Your task to perform on an android device: toggle notification dots Image 0: 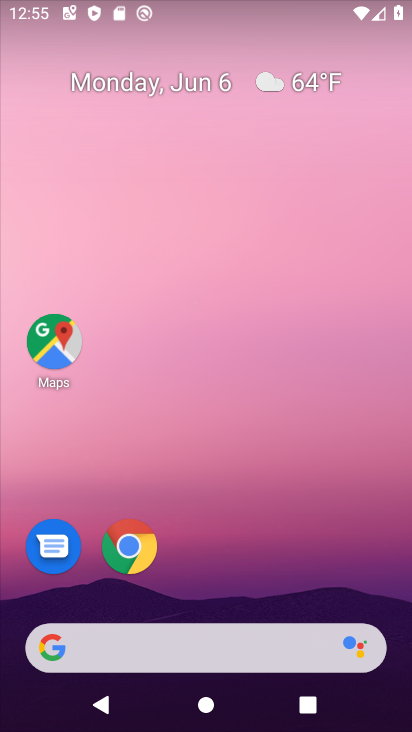
Step 0: drag from (285, 590) to (275, 260)
Your task to perform on an android device: toggle notification dots Image 1: 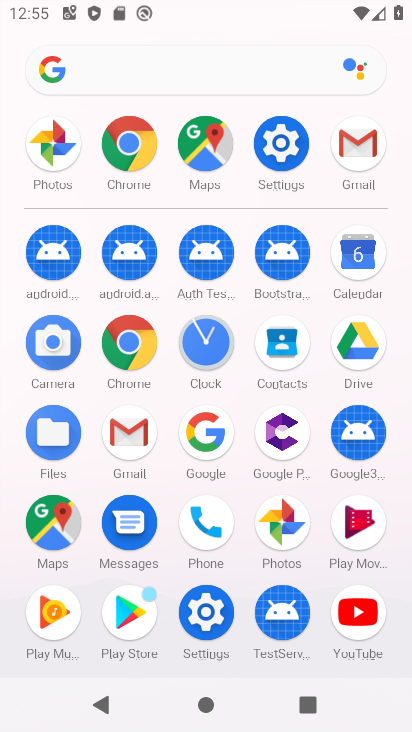
Step 1: click (271, 147)
Your task to perform on an android device: toggle notification dots Image 2: 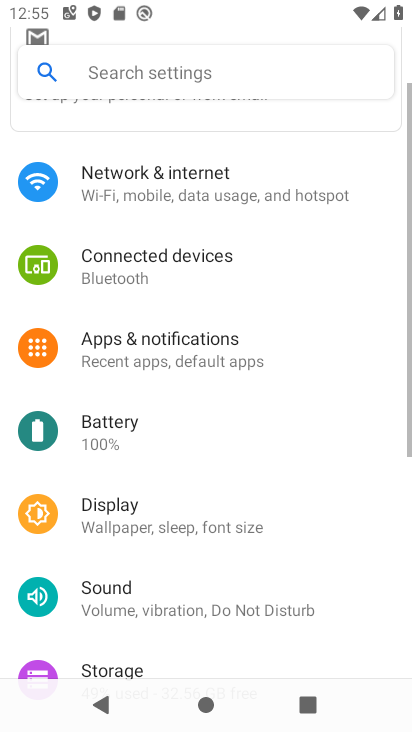
Step 2: click (179, 66)
Your task to perform on an android device: toggle notification dots Image 3: 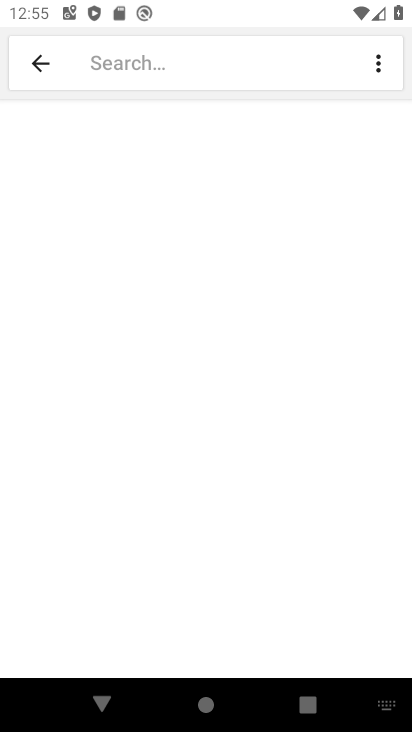
Step 3: type " notification dots"
Your task to perform on an android device: toggle notification dots Image 4: 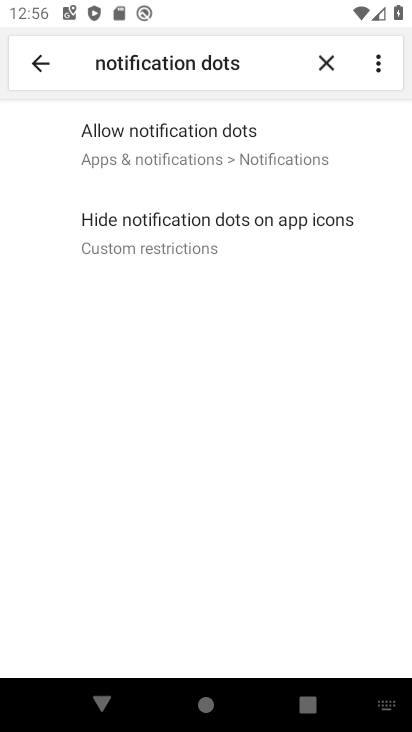
Step 4: click (117, 140)
Your task to perform on an android device: toggle notification dots Image 5: 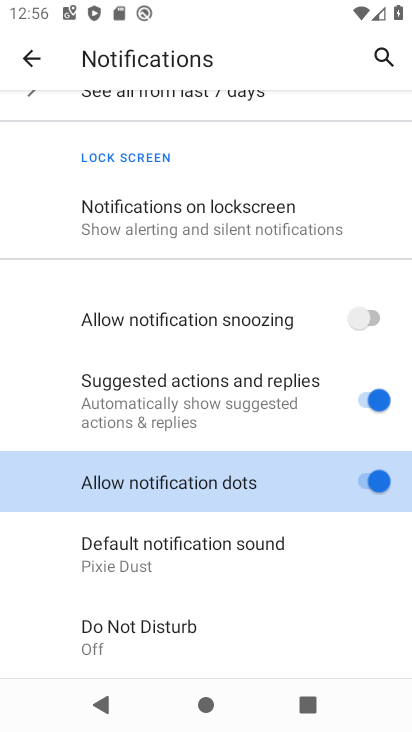
Step 5: click (370, 473)
Your task to perform on an android device: toggle notification dots Image 6: 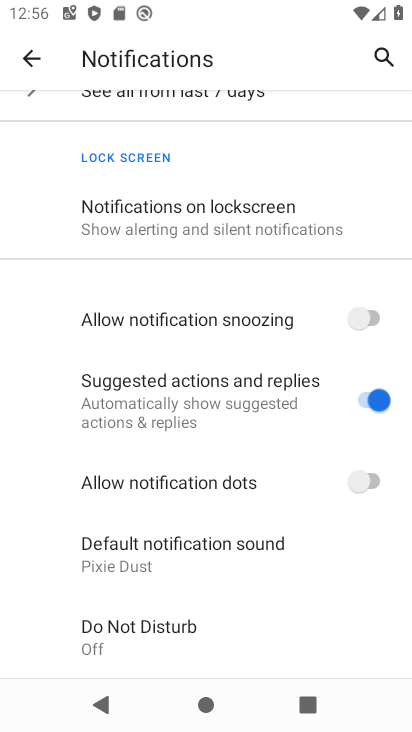
Step 6: task complete